Your task to perform on an android device: Open calendar and show me the fourth week of next month Image 0: 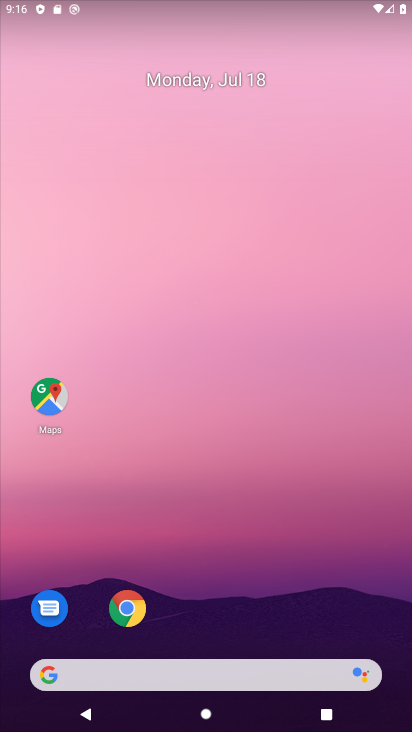
Step 0: drag from (196, 641) to (302, 15)
Your task to perform on an android device: Open calendar and show me the fourth week of next month Image 1: 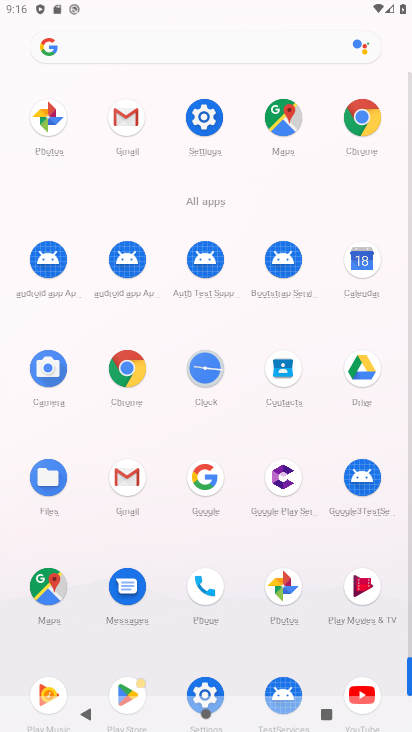
Step 1: click (376, 261)
Your task to perform on an android device: Open calendar and show me the fourth week of next month Image 2: 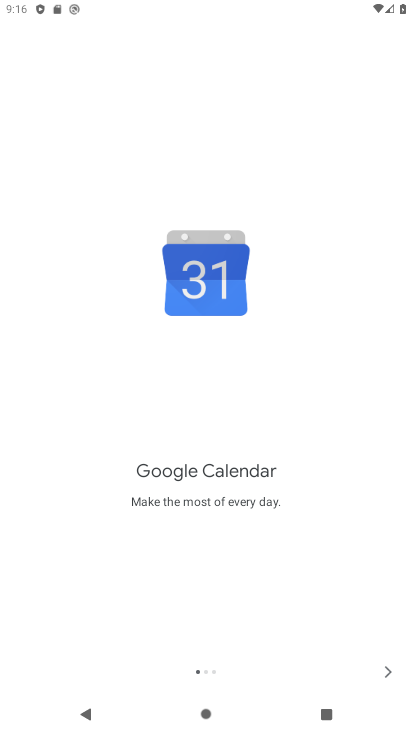
Step 2: click (381, 670)
Your task to perform on an android device: Open calendar and show me the fourth week of next month Image 3: 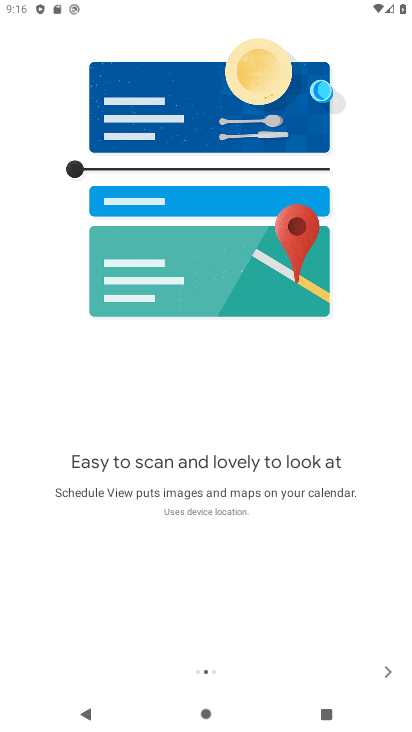
Step 3: click (381, 670)
Your task to perform on an android device: Open calendar and show me the fourth week of next month Image 4: 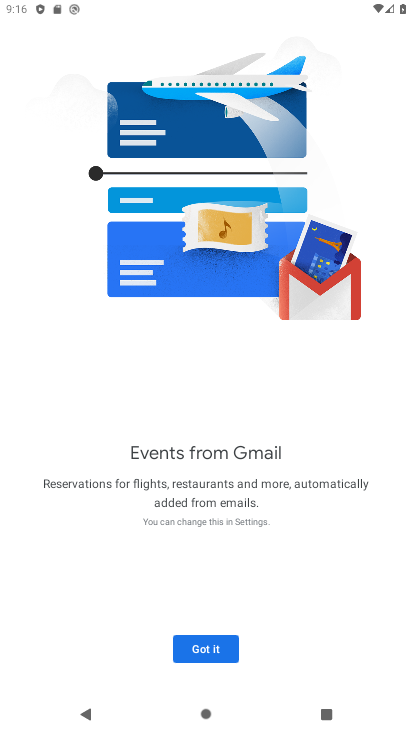
Step 4: click (206, 648)
Your task to perform on an android device: Open calendar and show me the fourth week of next month Image 5: 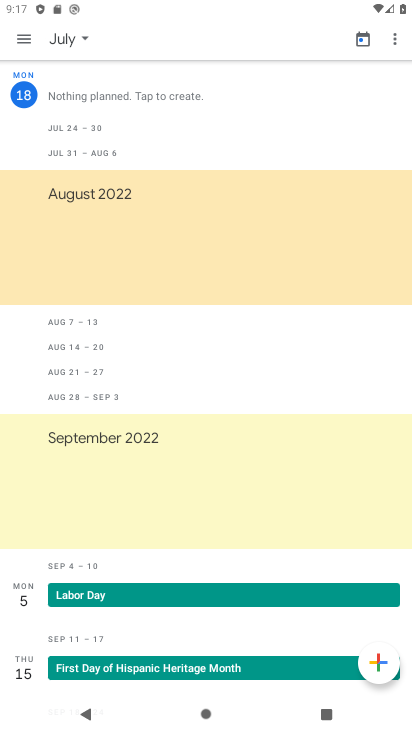
Step 5: click (22, 37)
Your task to perform on an android device: Open calendar and show me the fourth week of next month Image 6: 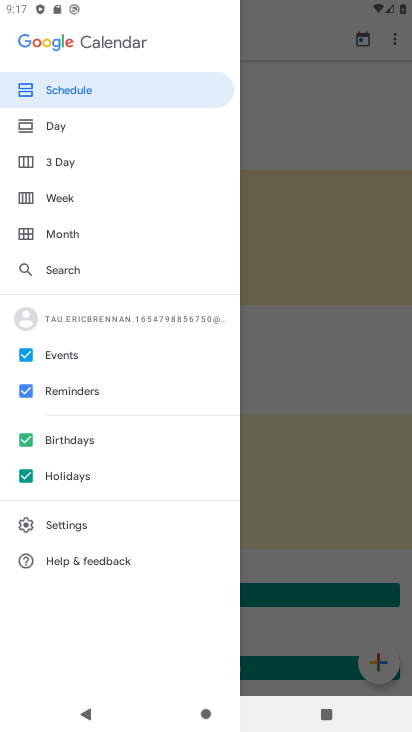
Step 6: click (82, 199)
Your task to perform on an android device: Open calendar and show me the fourth week of next month Image 7: 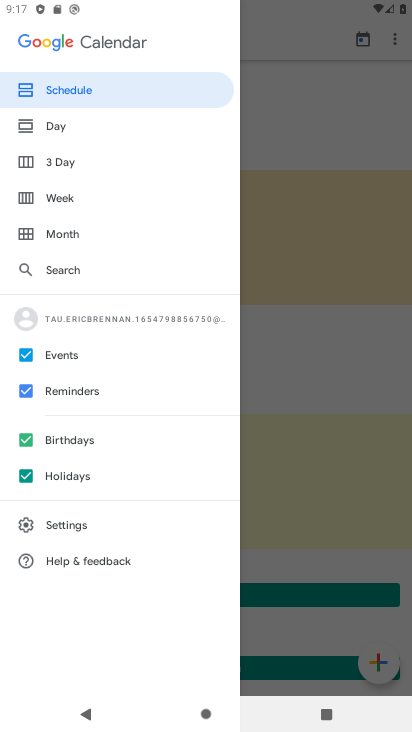
Step 7: click (58, 200)
Your task to perform on an android device: Open calendar and show me the fourth week of next month Image 8: 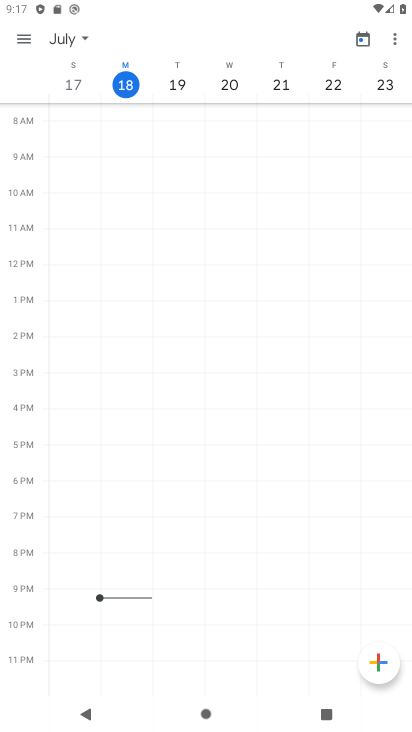
Step 8: task complete